Your task to perform on an android device: refresh tabs in the chrome app Image 0: 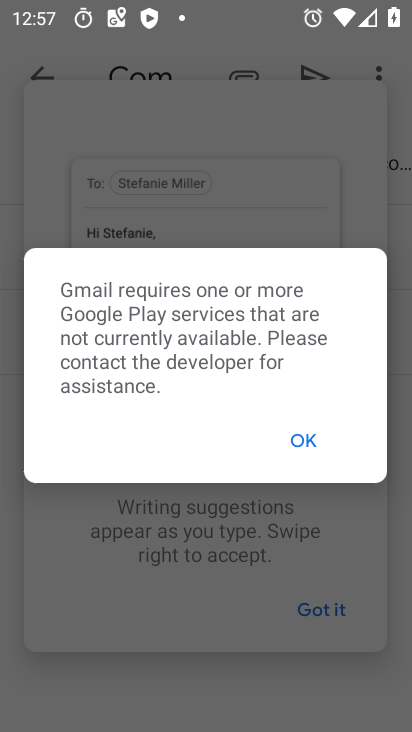
Step 0: press home button
Your task to perform on an android device: refresh tabs in the chrome app Image 1: 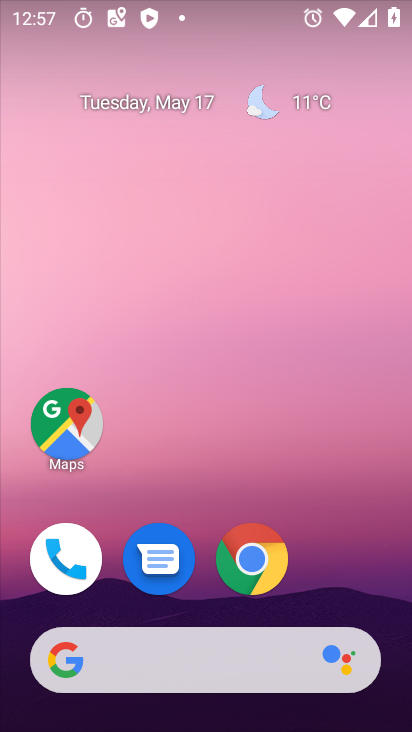
Step 1: click (248, 556)
Your task to perform on an android device: refresh tabs in the chrome app Image 2: 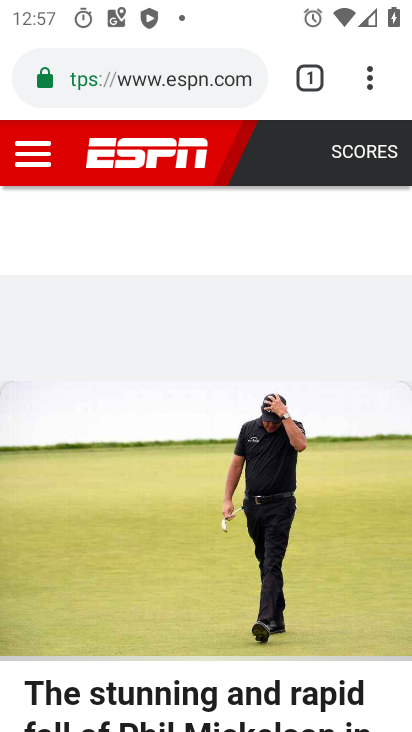
Step 2: click (376, 81)
Your task to perform on an android device: refresh tabs in the chrome app Image 3: 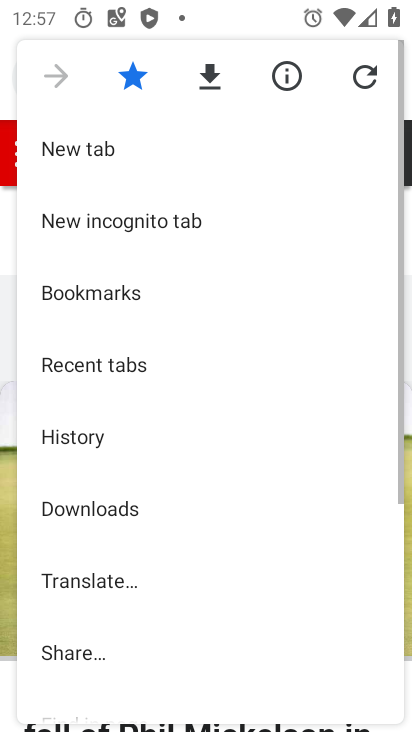
Step 3: click (376, 81)
Your task to perform on an android device: refresh tabs in the chrome app Image 4: 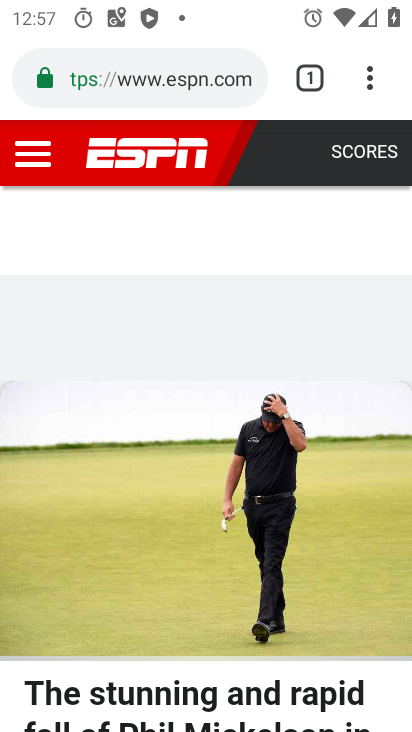
Step 4: task complete